Your task to perform on an android device: change notifications settings Image 0: 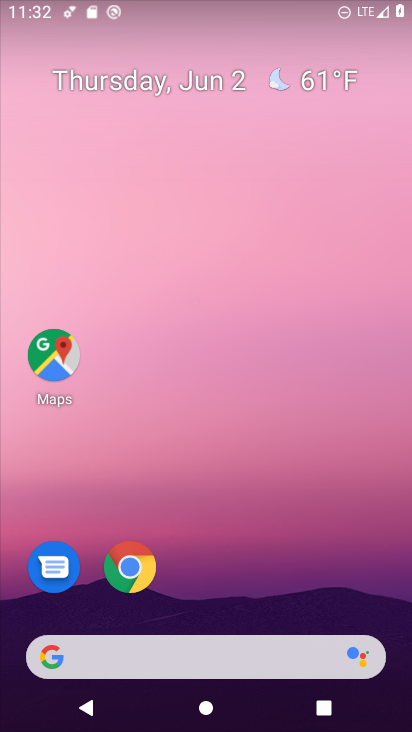
Step 0: drag from (274, 466) to (248, 263)
Your task to perform on an android device: change notifications settings Image 1: 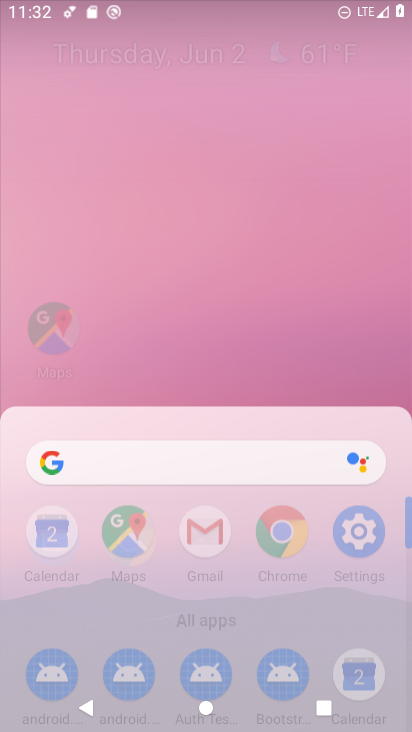
Step 1: click (219, 122)
Your task to perform on an android device: change notifications settings Image 2: 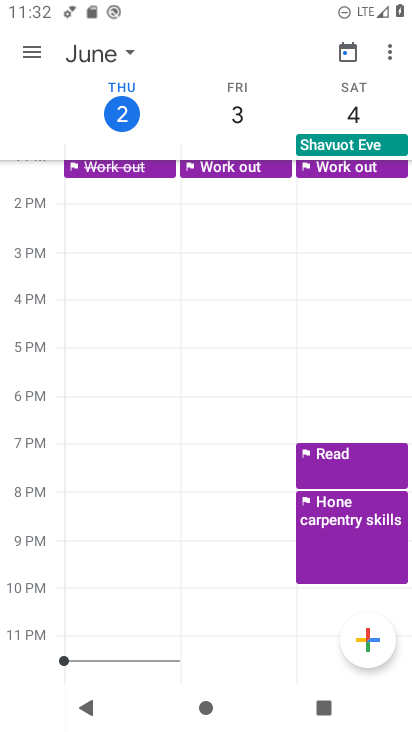
Step 2: press home button
Your task to perform on an android device: change notifications settings Image 3: 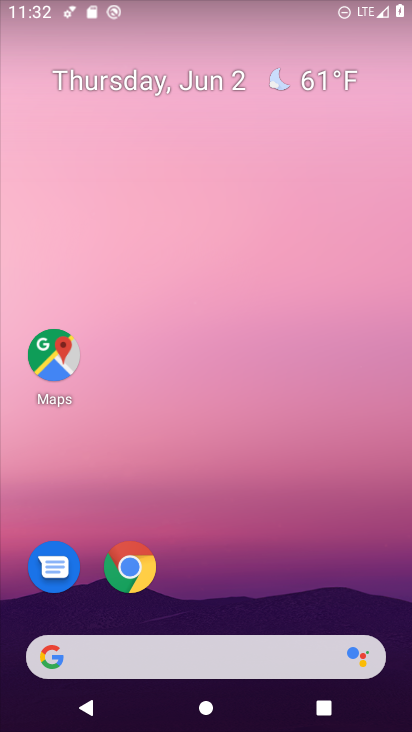
Step 3: drag from (212, 552) to (206, 163)
Your task to perform on an android device: change notifications settings Image 4: 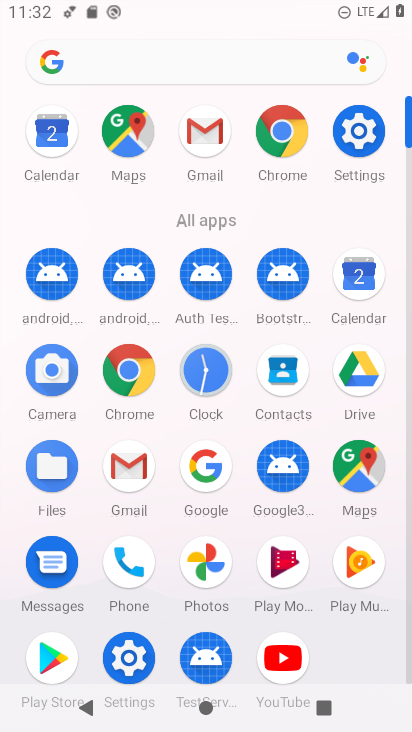
Step 4: click (369, 136)
Your task to perform on an android device: change notifications settings Image 5: 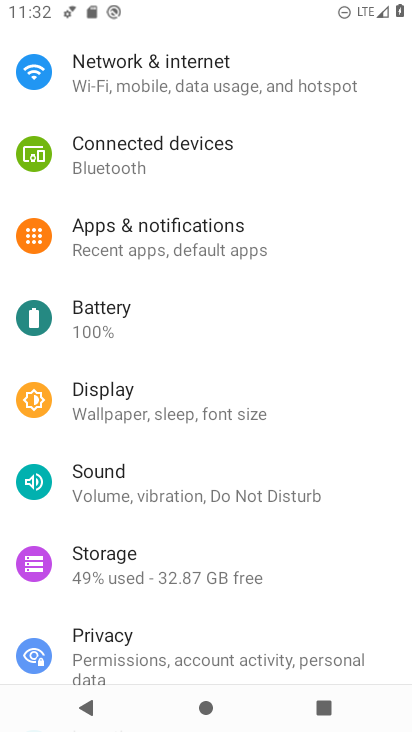
Step 5: click (173, 232)
Your task to perform on an android device: change notifications settings Image 6: 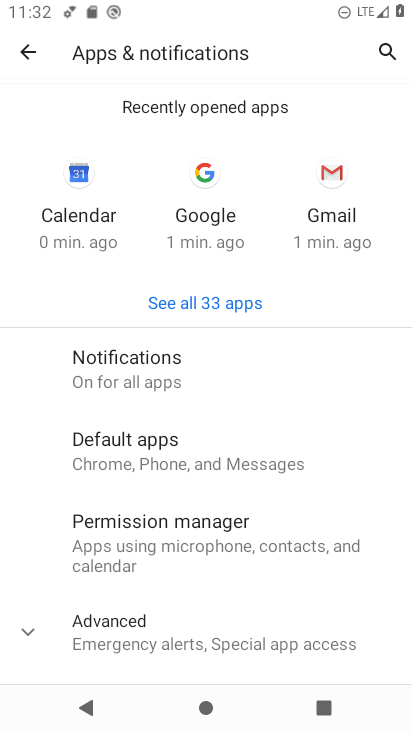
Step 6: click (157, 370)
Your task to perform on an android device: change notifications settings Image 7: 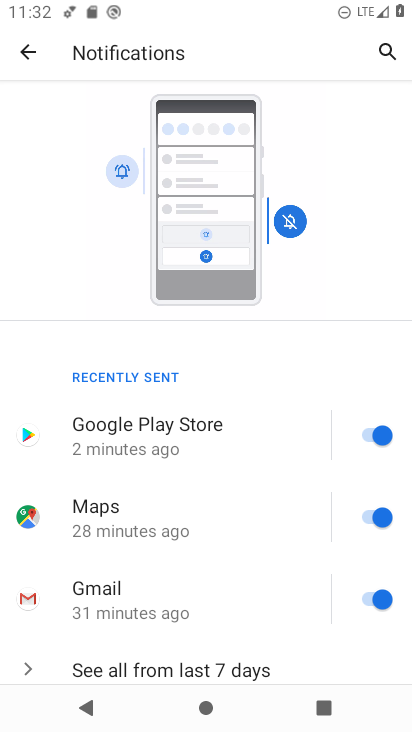
Step 7: drag from (257, 539) to (240, 79)
Your task to perform on an android device: change notifications settings Image 8: 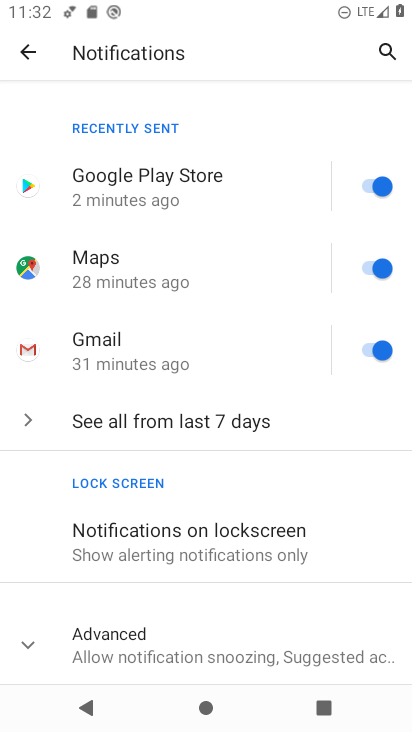
Step 8: click (179, 643)
Your task to perform on an android device: change notifications settings Image 9: 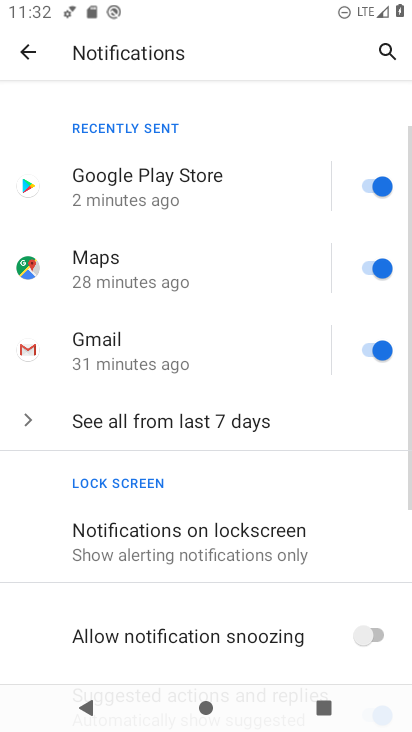
Step 9: click (361, 630)
Your task to perform on an android device: change notifications settings Image 10: 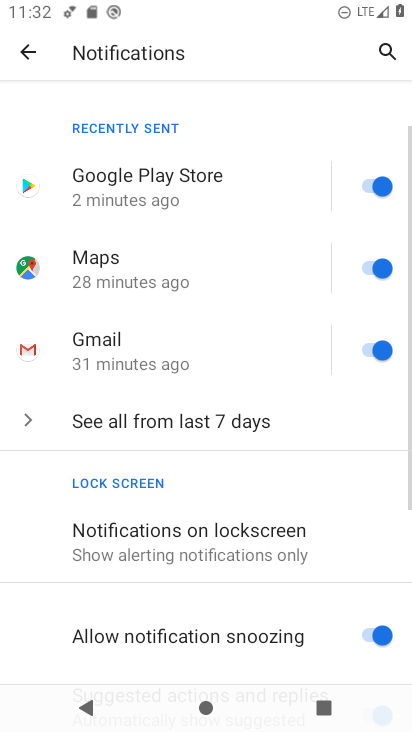
Step 10: task complete